Your task to perform on an android device: Search for Mexican restaurants on Maps Image 0: 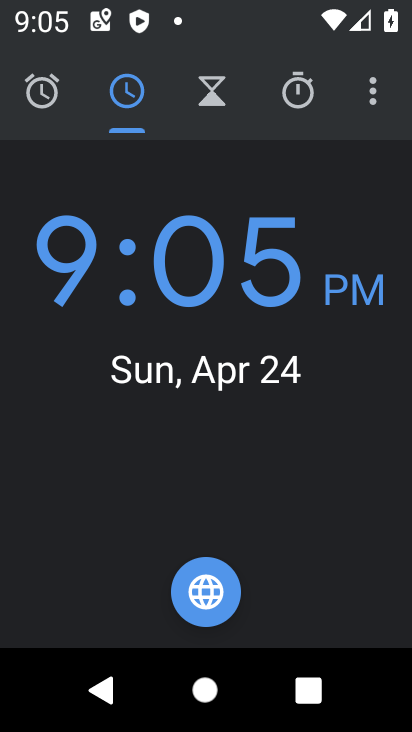
Step 0: press home button
Your task to perform on an android device: Search for Mexican restaurants on Maps Image 1: 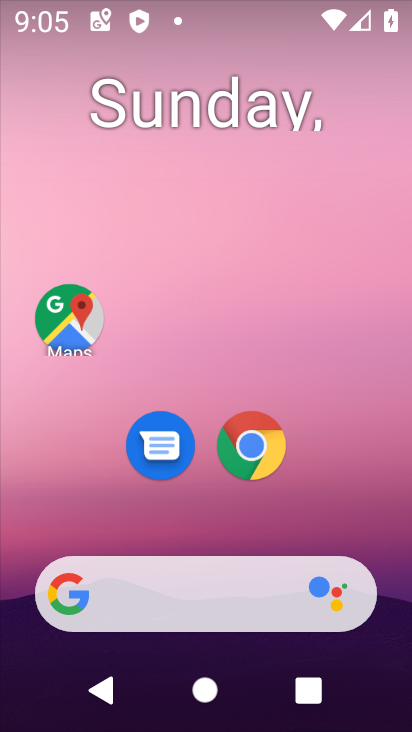
Step 1: click (67, 325)
Your task to perform on an android device: Search for Mexican restaurants on Maps Image 2: 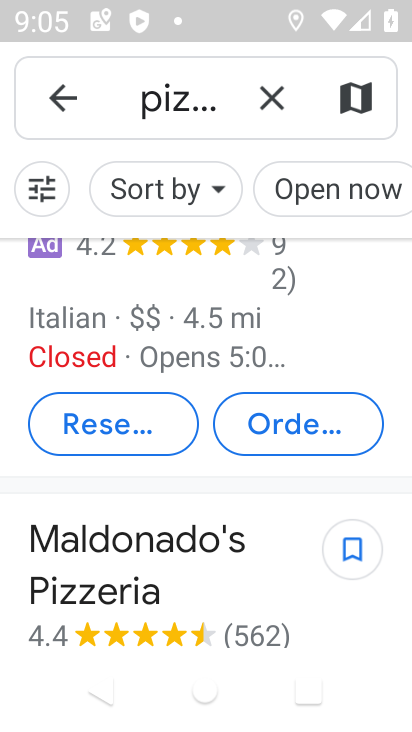
Step 2: click (265, 93)
Your task to perform on an android device: Search for Mexican restaurants on Maps Image 3: 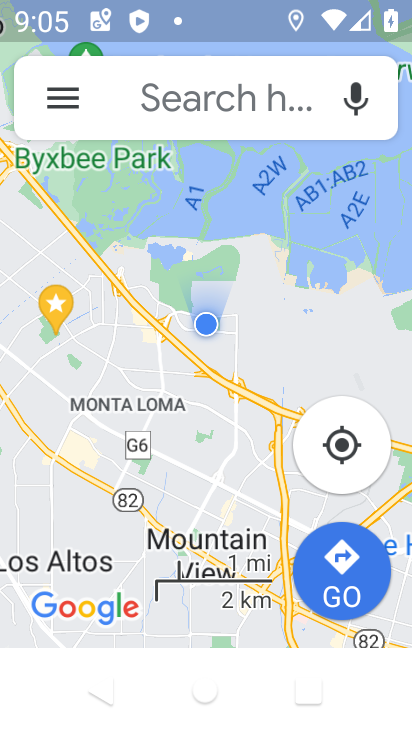
Step 3: click (163, 102)
Your task to perform on an android device: Search for Mexican restaurants on Maps Image 4: 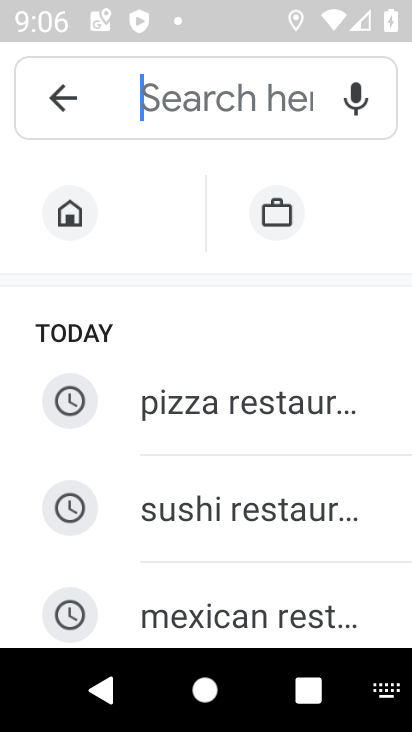
Step 4: type "mexican restaurants"
Your task to perform on an android device: Search for Mexican restaurants on Maps Image 5: 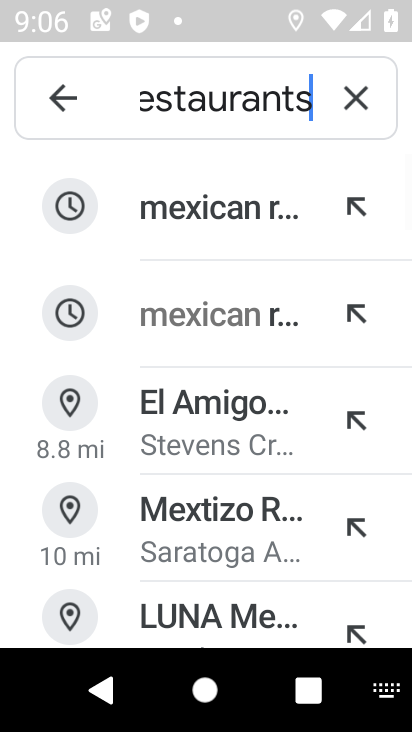
Step 5: click (225, 216)
Your task to perform on an android device: Search for Mexican restaurants on Maps Image 6: 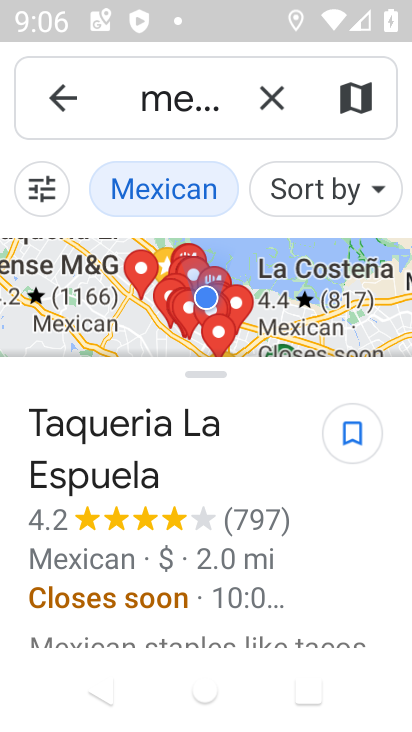
Step 6: task complete